Your task to perform on an android device: move a message to another label in the gmail app Image 0: 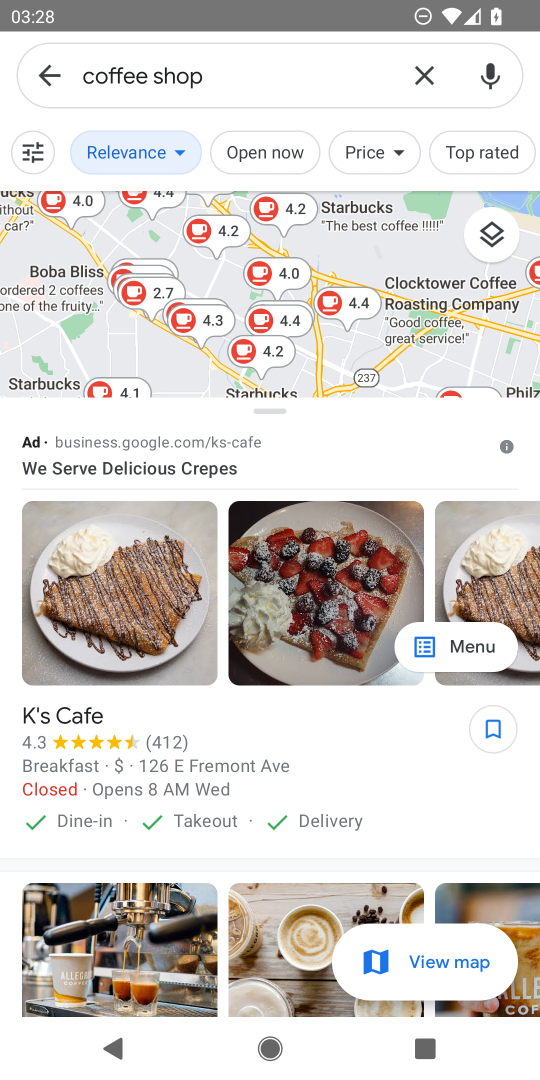
Step 0: press home button
Your task to perform on an android device: move a message to another label in the gmail app Image 1: 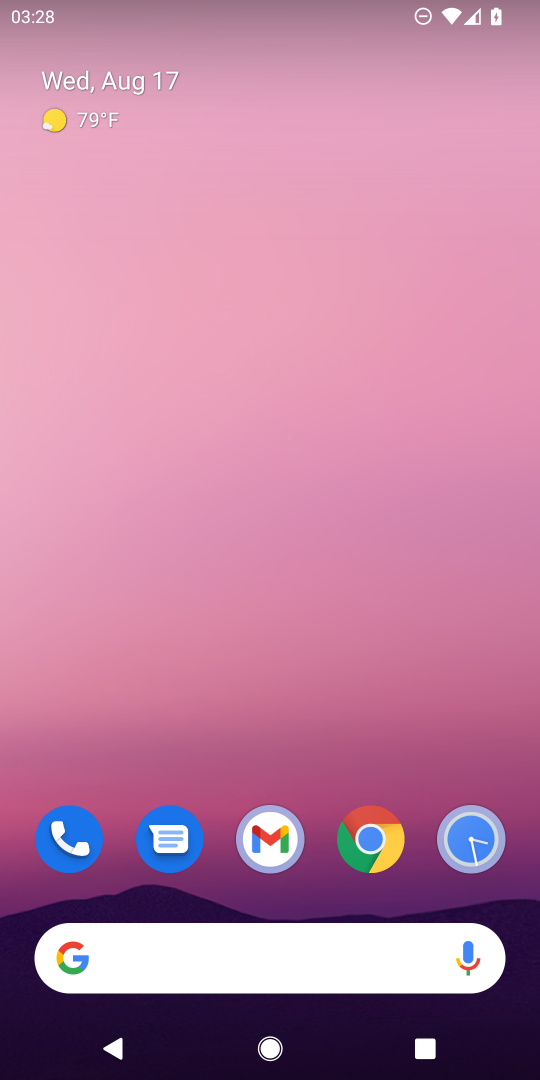
Step 1: drag from (229, 609) to (170, 161)
Your task to perform on an android device: move a message to another label in the gmail app Image 2: 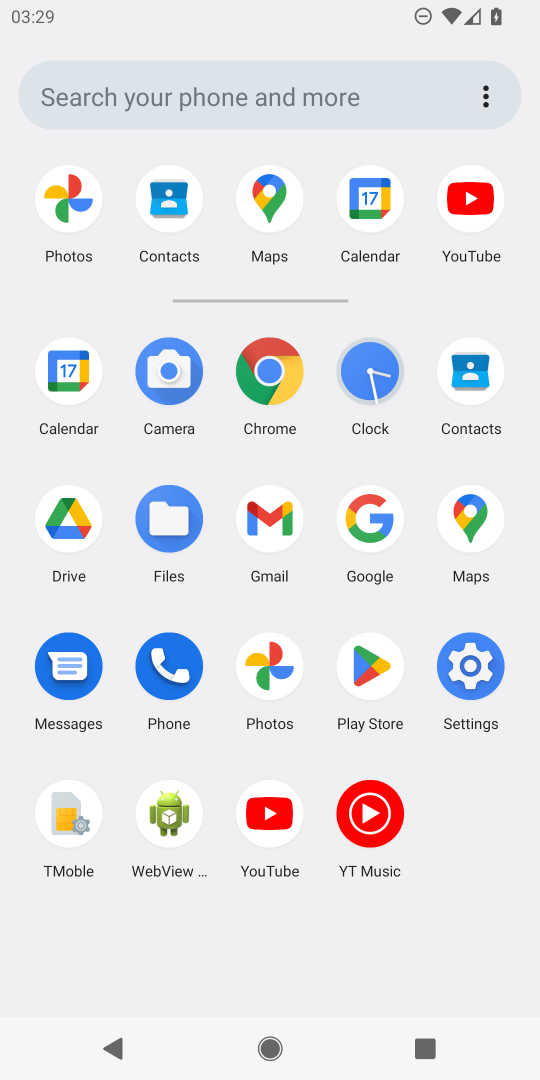
Step 2: click (266, 515)
Your task to perform on an android device: move a message to another label in the gmail app Image 3: 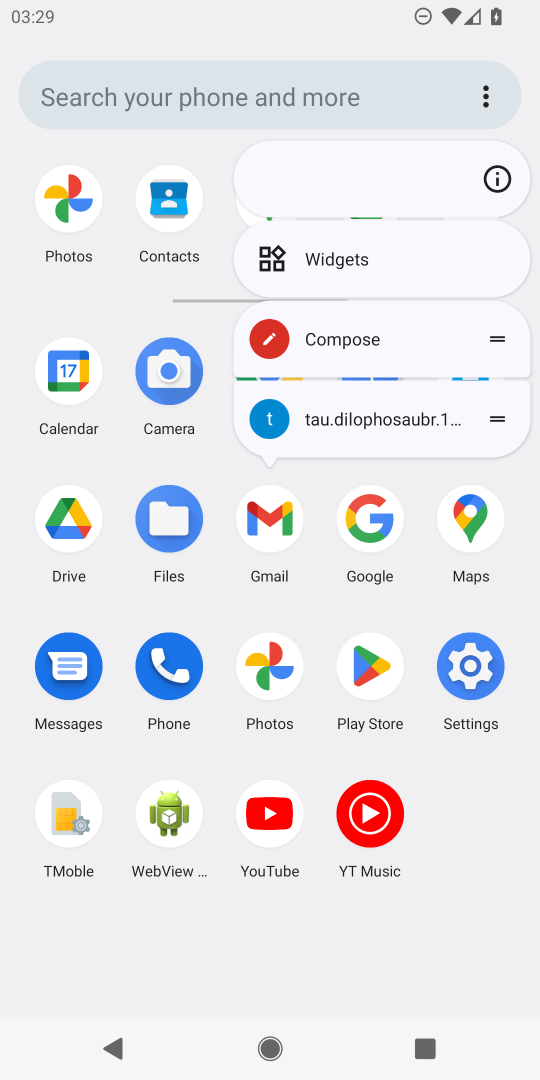
Step 3: click (277, 519)
Your task to perform on an android device: move a message to another label in the gmail app Image 4: 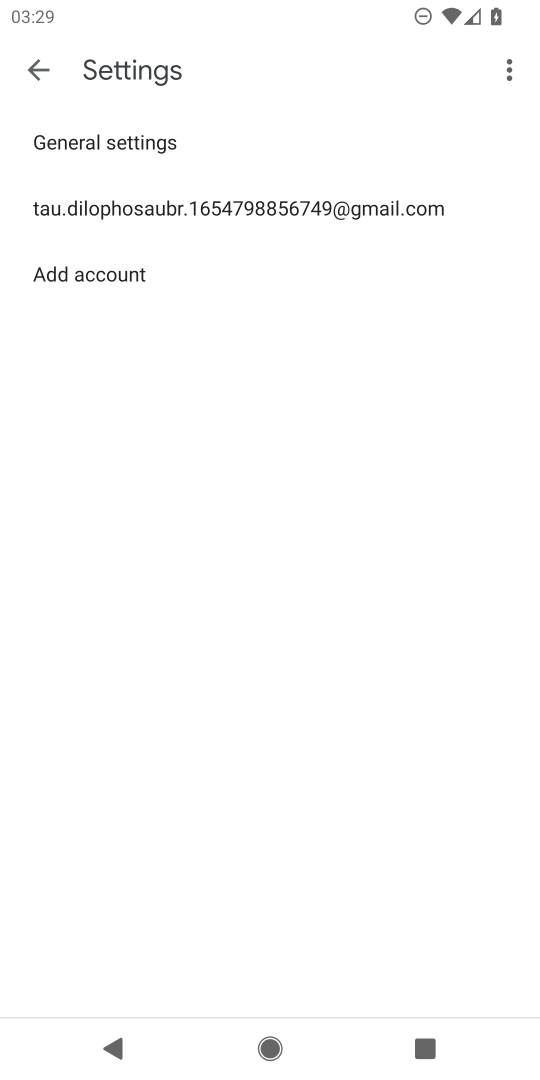
Step 4: click (40, 71)
Your task to perform on an android device: move a message to another label in the gmail app Image 5: 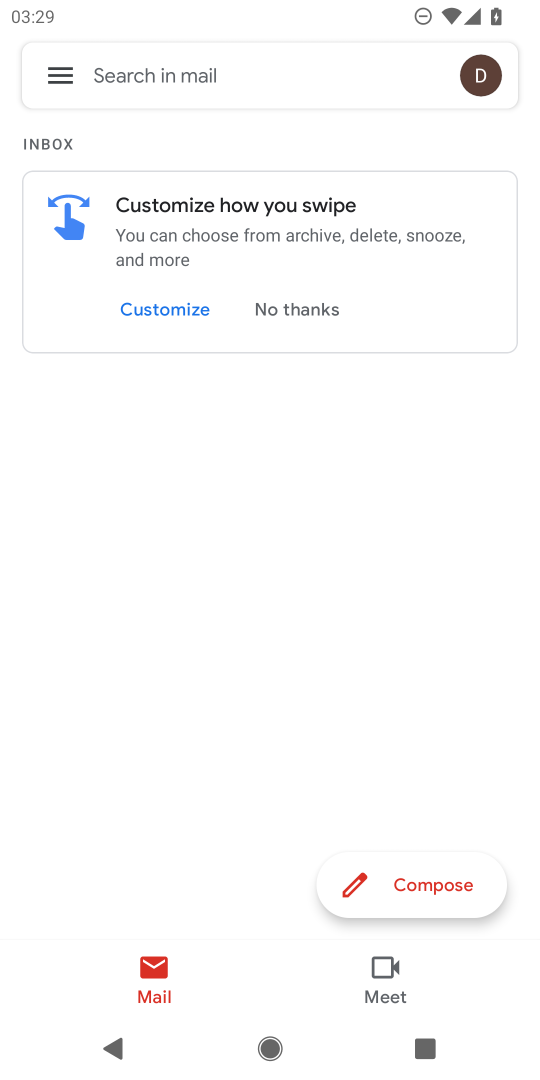
Step 5: task complete